Your task to perform on an android device: Add acer predator to the cart on amazon.com, then select checkout. Image 0: 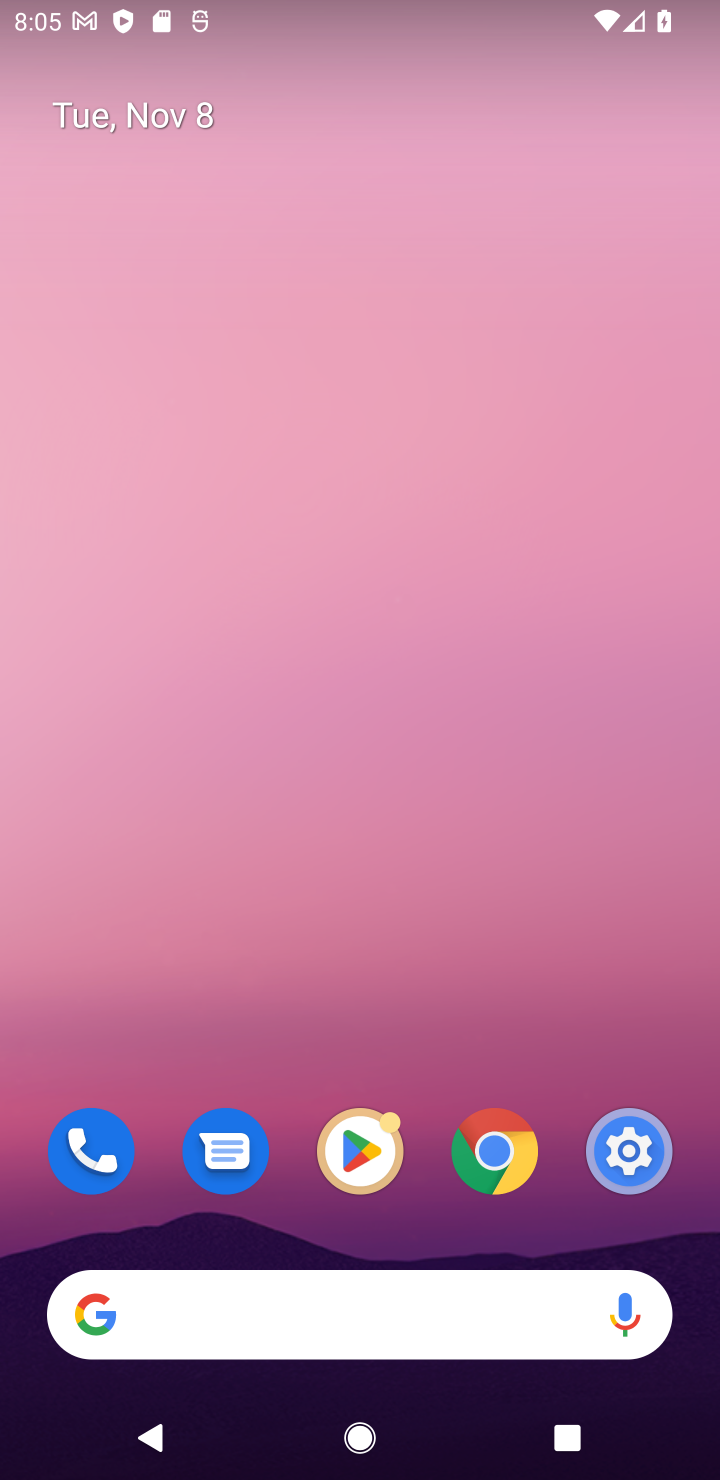
Step 0: click (248, 1295)
Your task to perform on an android device: Add acer predator to the cart on amazon.com, then select checkout. Image 1: 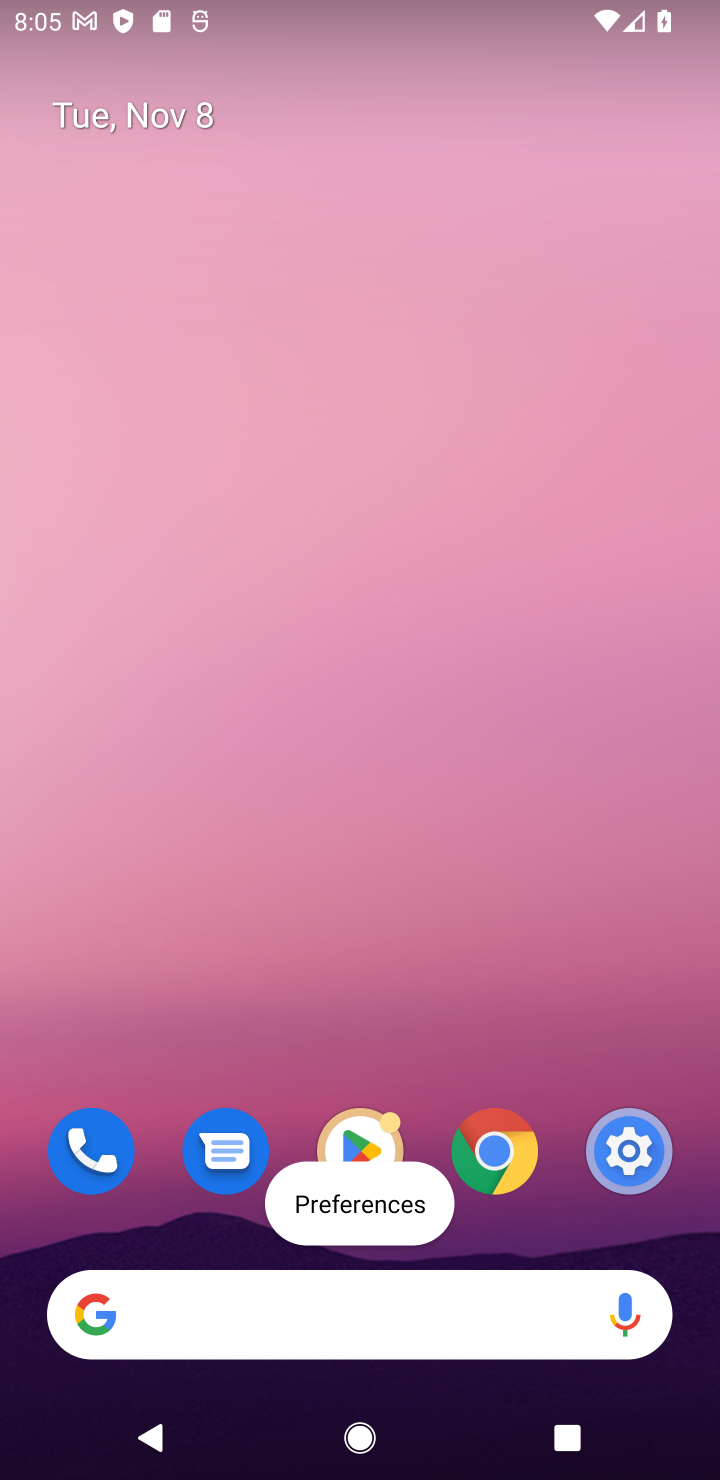
Step 1: click (437, 1322)
Your task to perform on an android device: Add acer predator to the cart on amazon.com, then select checkout. Image 2: 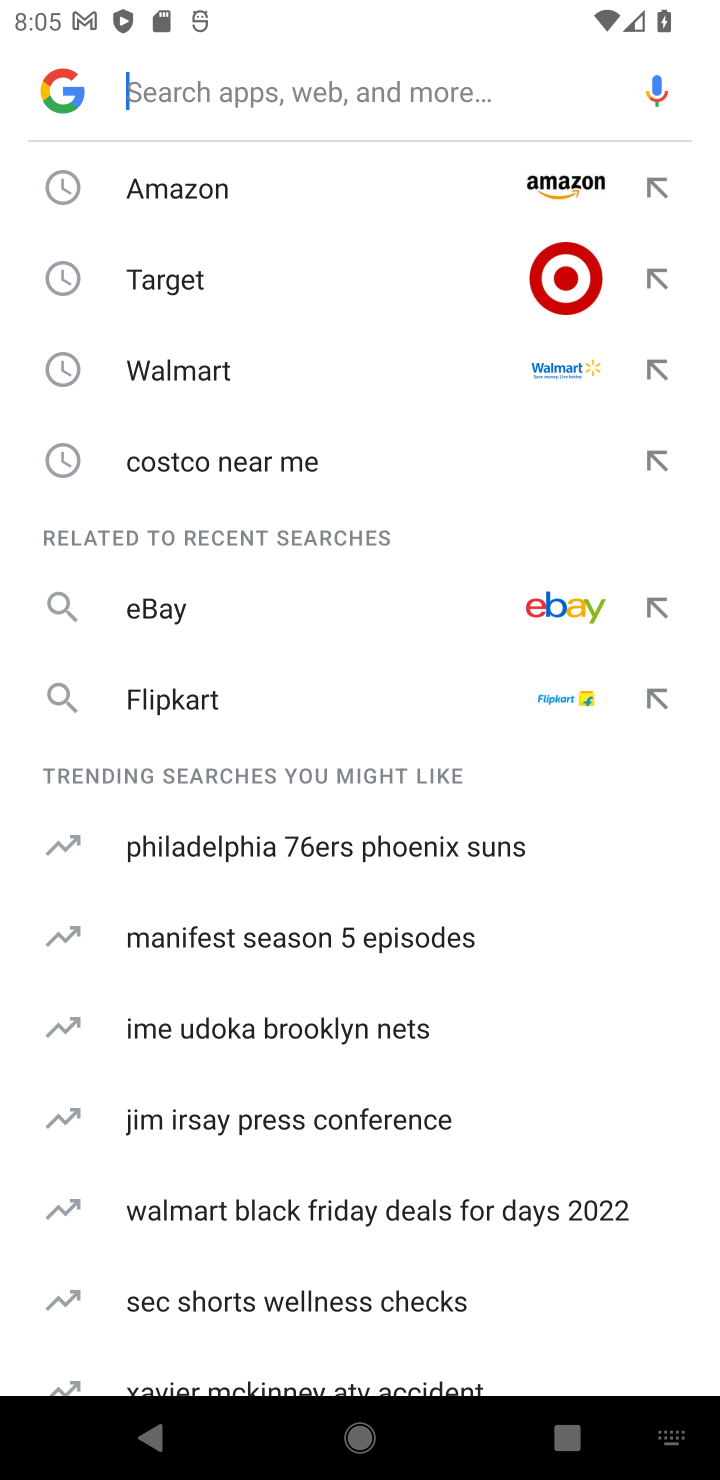
Step 2: type "ama"
Your task to perform on an android device: Add acer predator to the cart on amazon.com, then select checkout. Image 3: 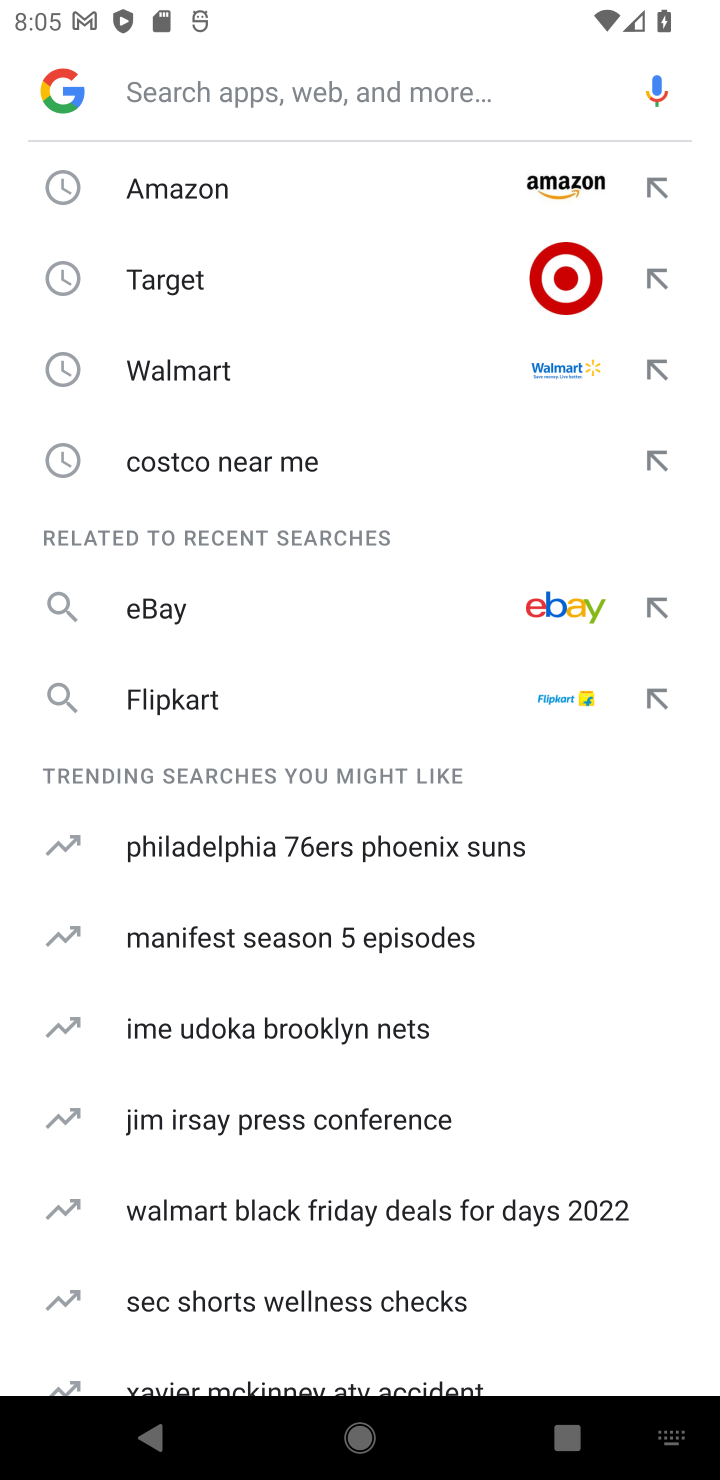
Step 3: click (401, 169)
Your task to perform on an android device: Add acer predator to the cart on amazon.com, then select checkout. Image 4: 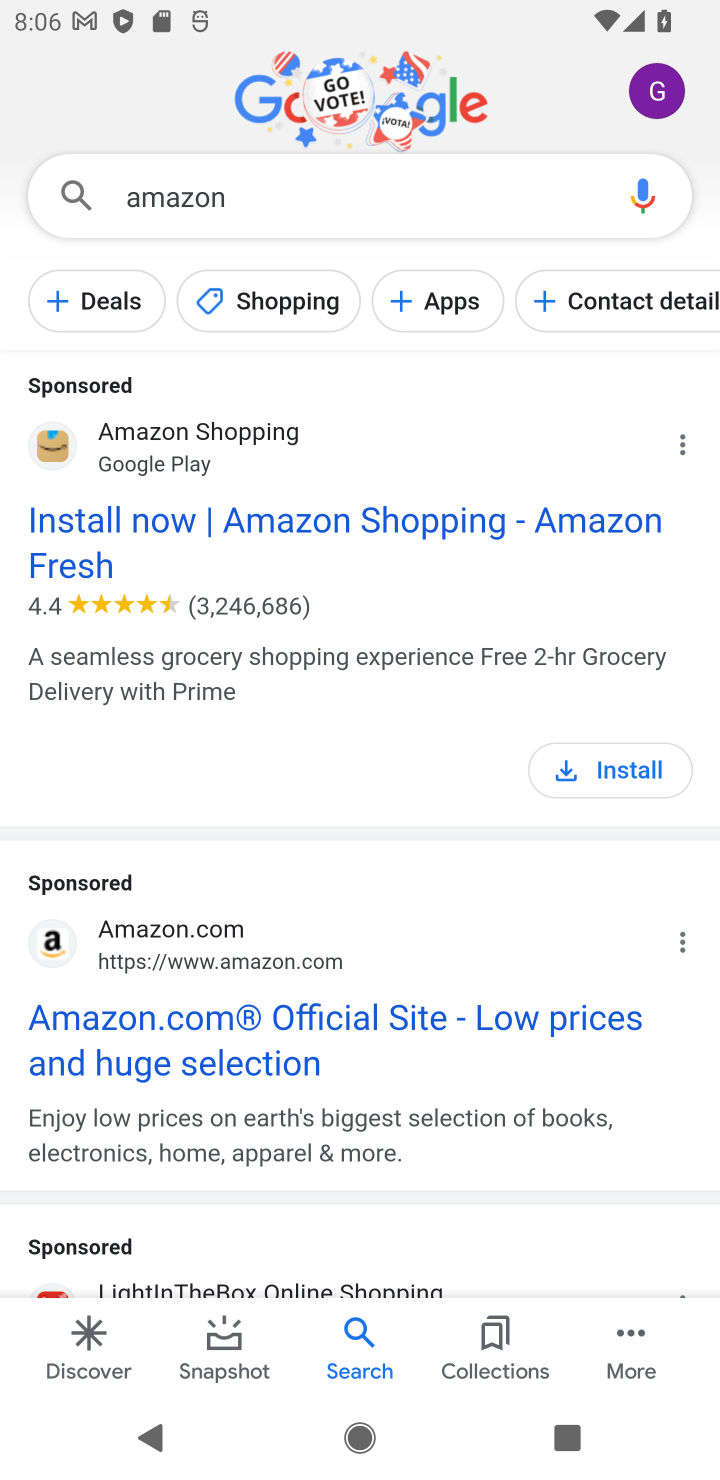
Step 4: click (193, 1024)
Your task to perform on an android device: Add acer predator to the cart on amazon.com, then select checkout. Image 5: 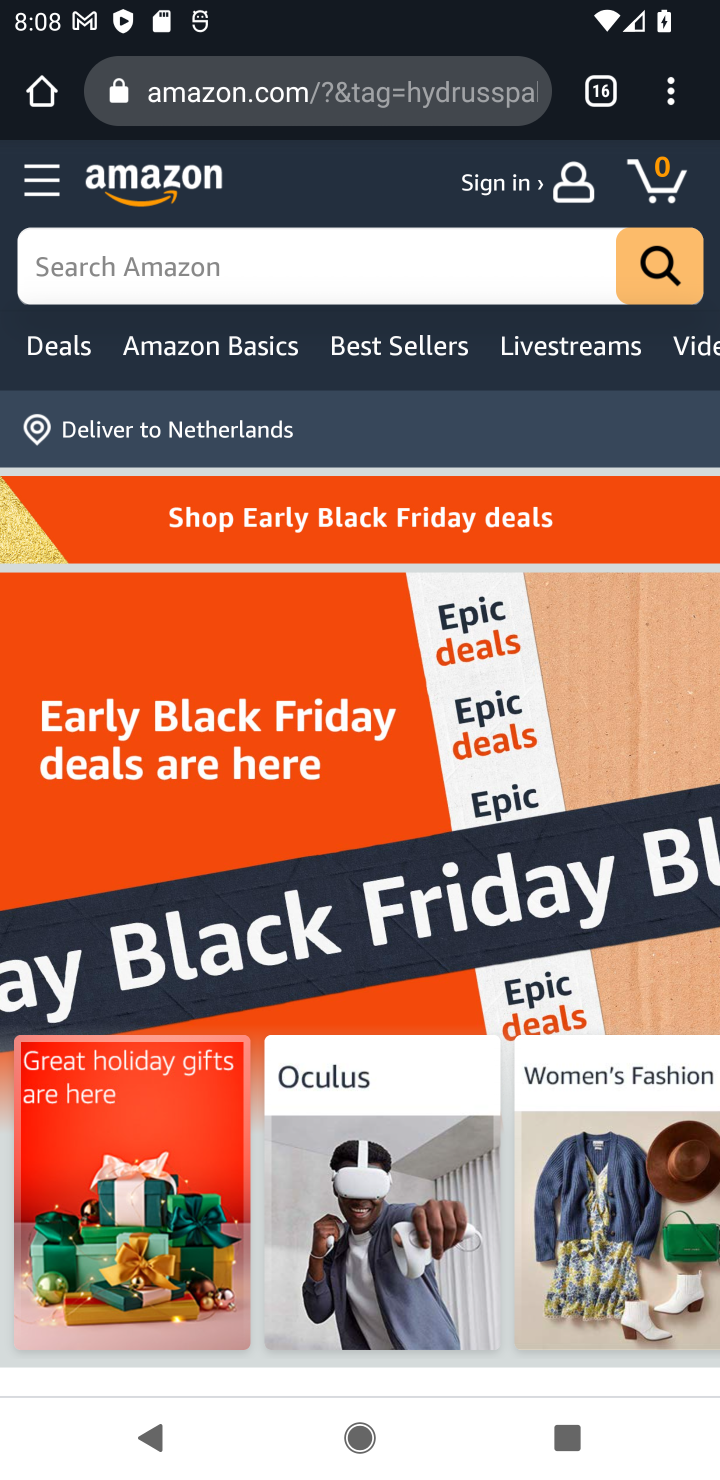
Step 5: click (367, 281)
Your task to perform on an android device: Add acer predator to the cart on amazon.com, then select checkout. Image 6: 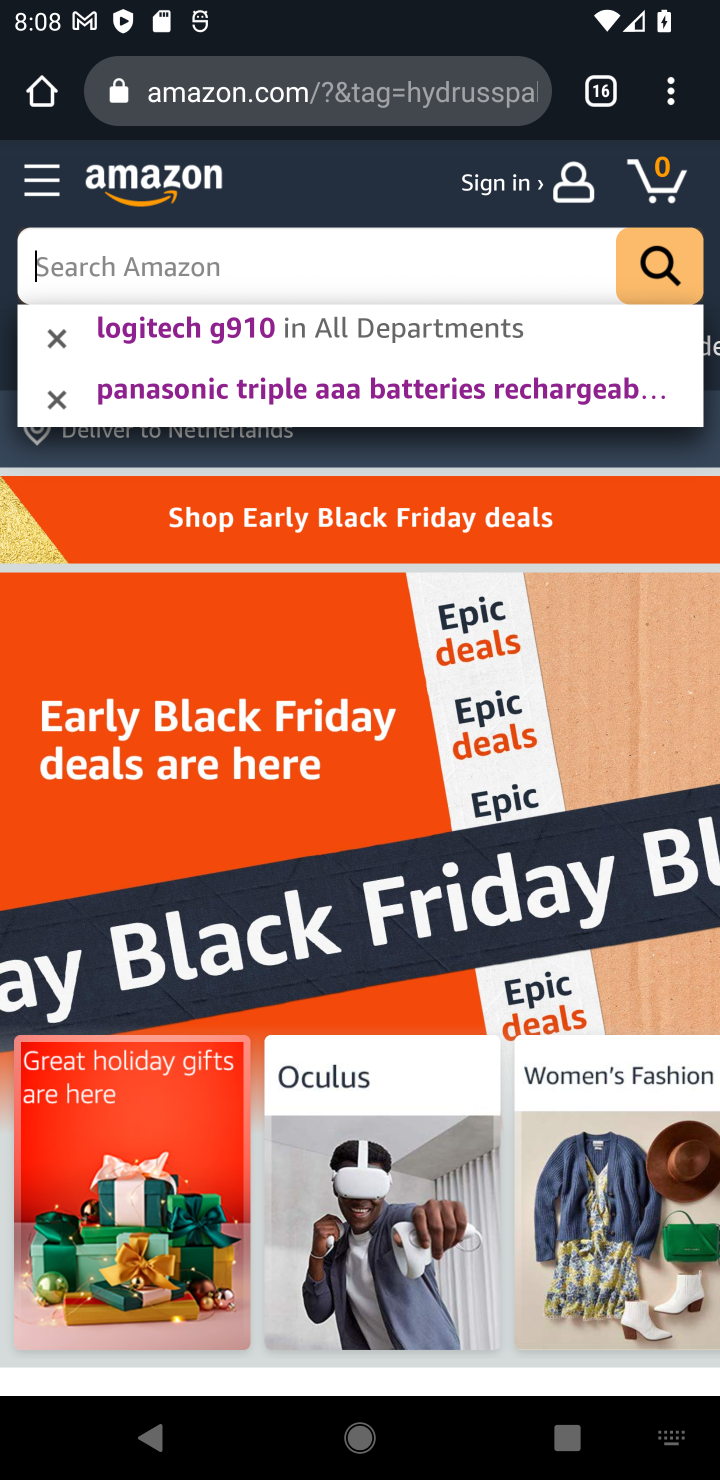
Step 6: type "acer predator"
Your task to perform on an android device: Add acer predator to the cart on amazon.com, then select checkout. Image 7: 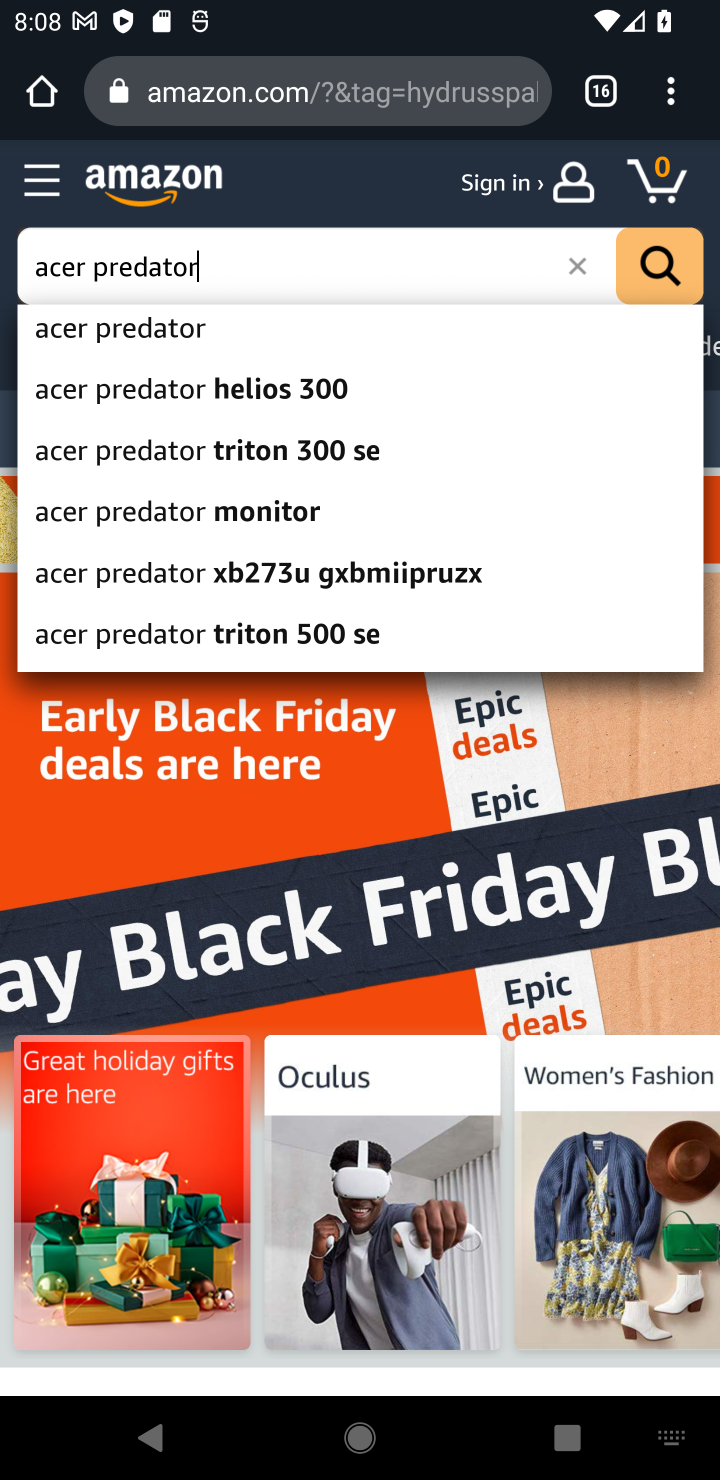
Step 7: click (136, 331)
Your task to perform on an android device: Add acer predator to the cart on amazon.com, then select checkout. Image 8: 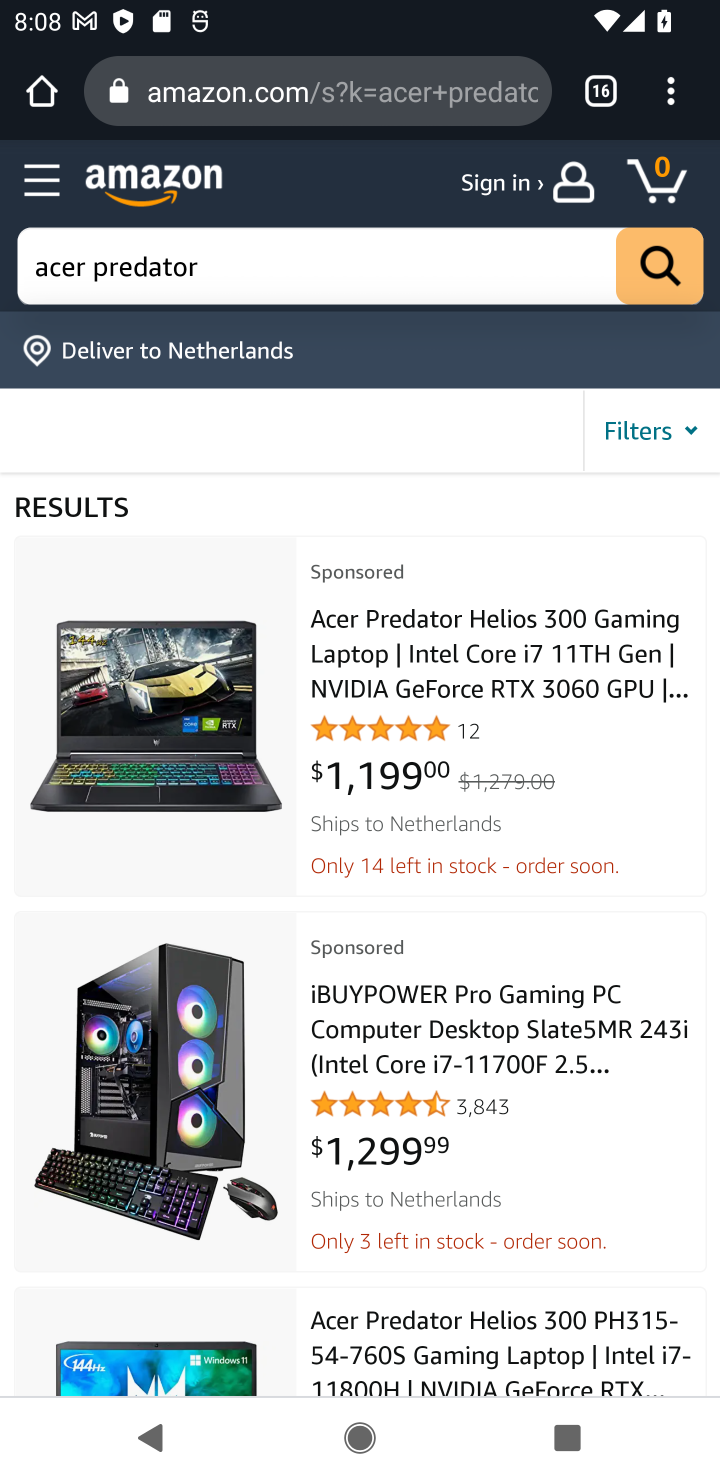
Step 8: click (367, 621)
Your task to perform on an android device: Add acer predator to the cart on amazon.com, then select checkout. Image 9: 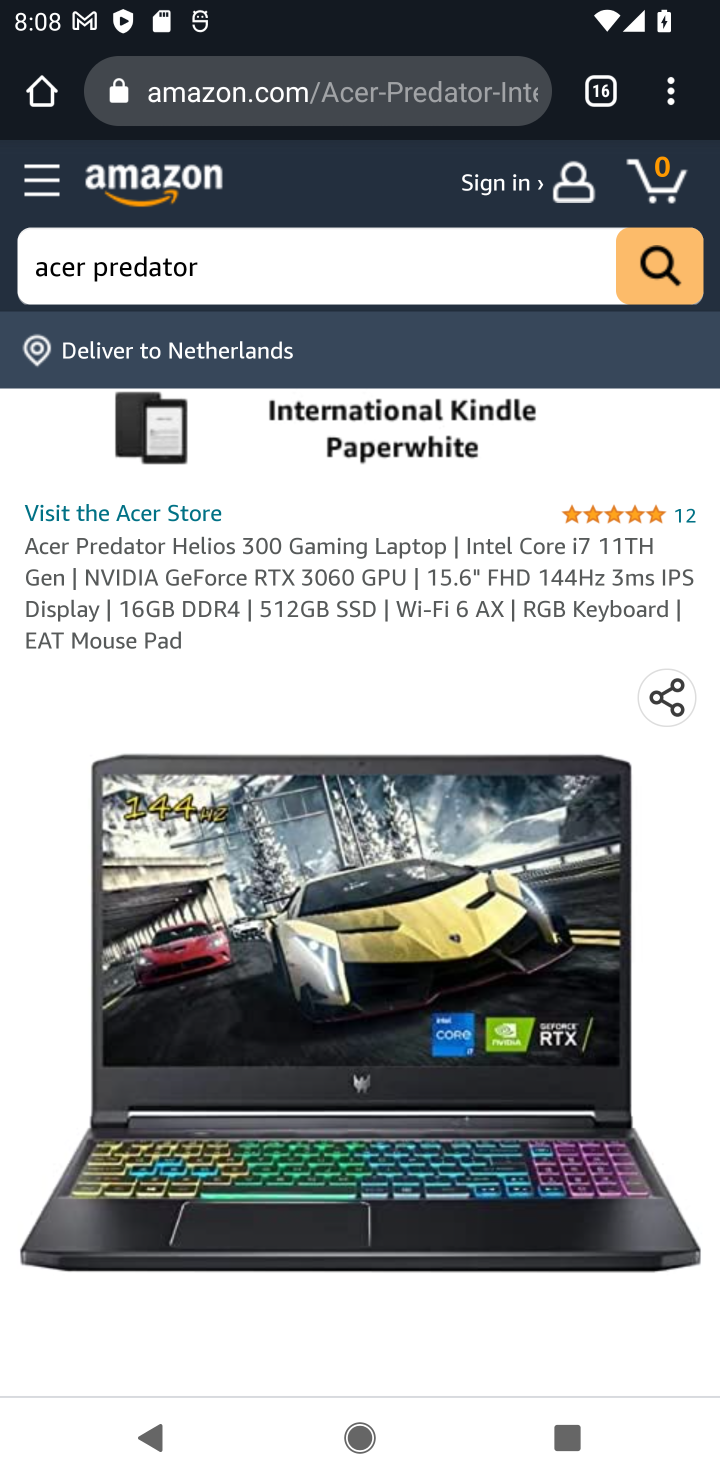
Step 9: drag from (394, 1351) to (388, 395)
Your task to perform on an android device: Add acer predator to the cart on amazon.com, then select checkout. Image 10: 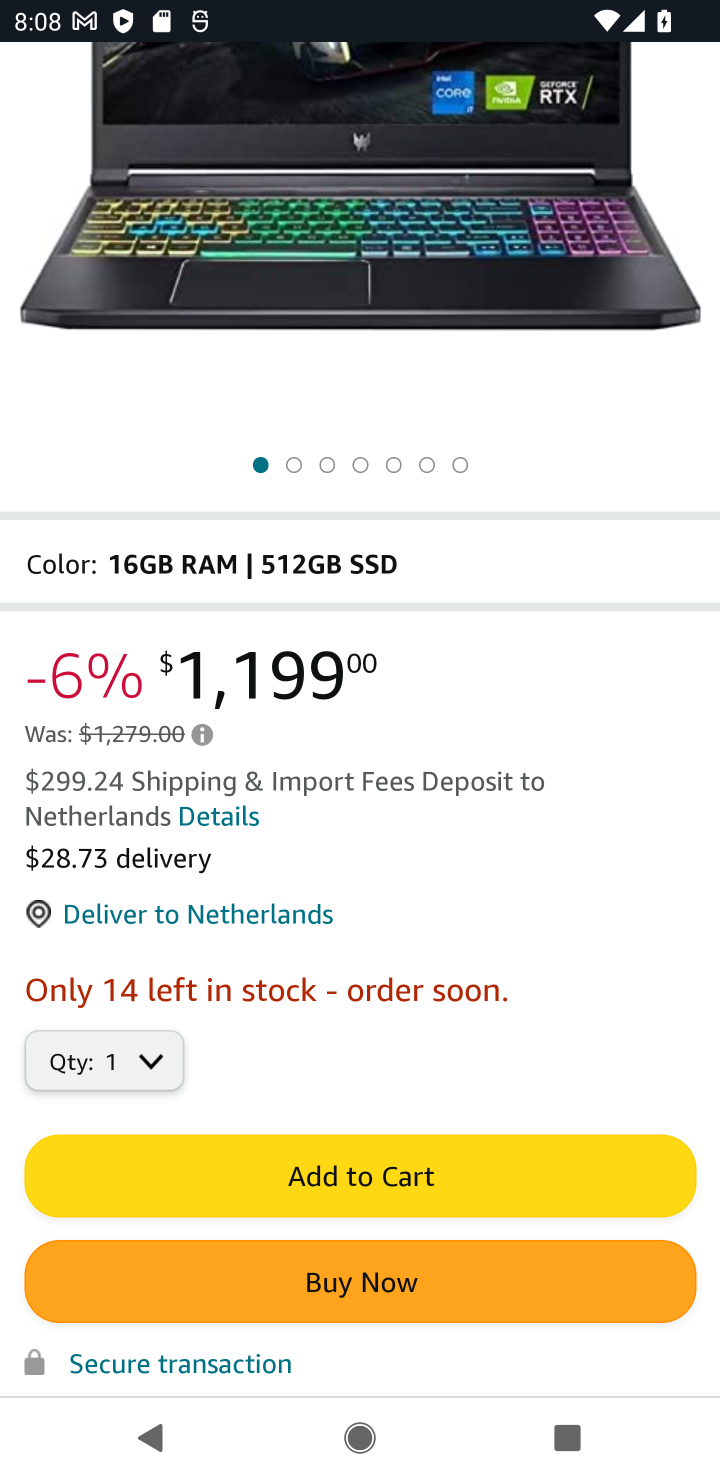
Step 10: click (458, 1185)
Your task to perform on an android device: Add acer predator to the cart on amazon.com, then select checkout. Image 11: 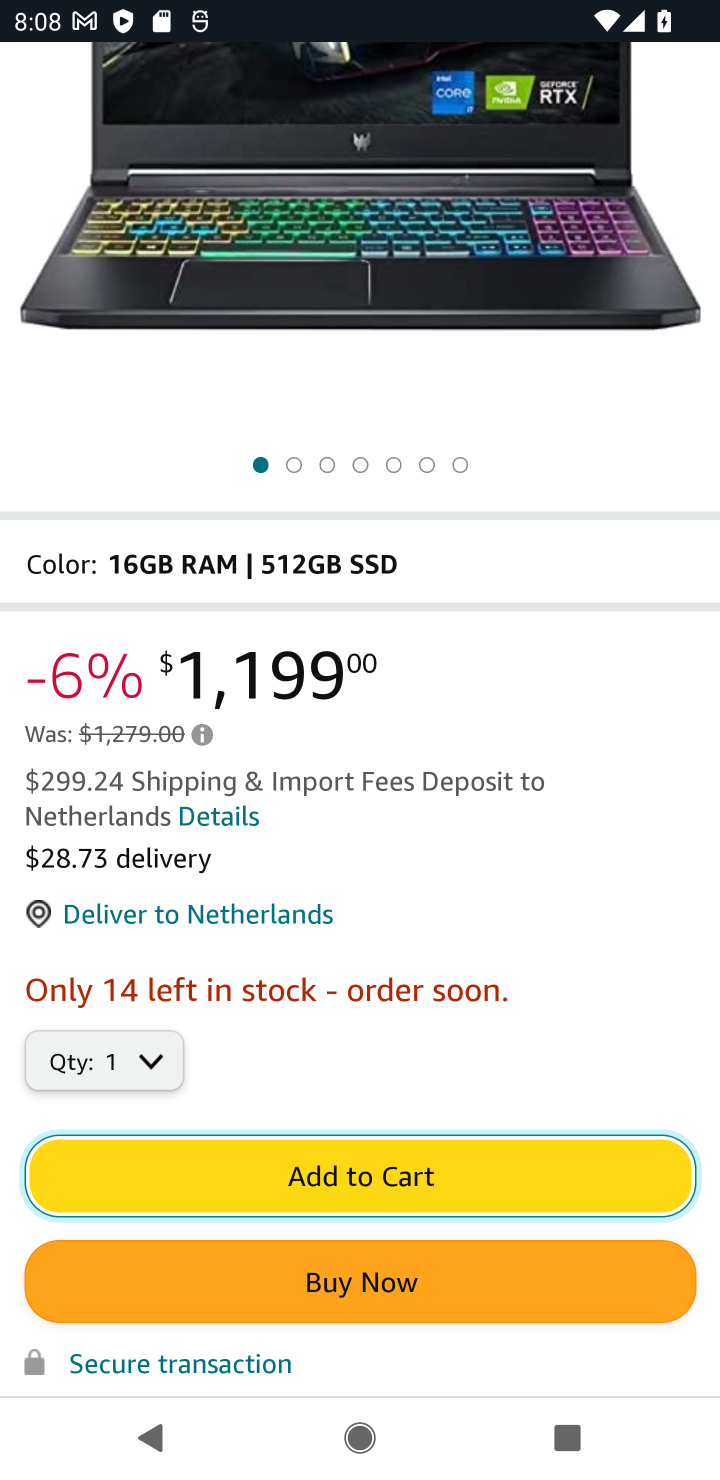
Step 11: task complete